Your task to perform on an android device: toggle pop-ups in chrome Image 0: 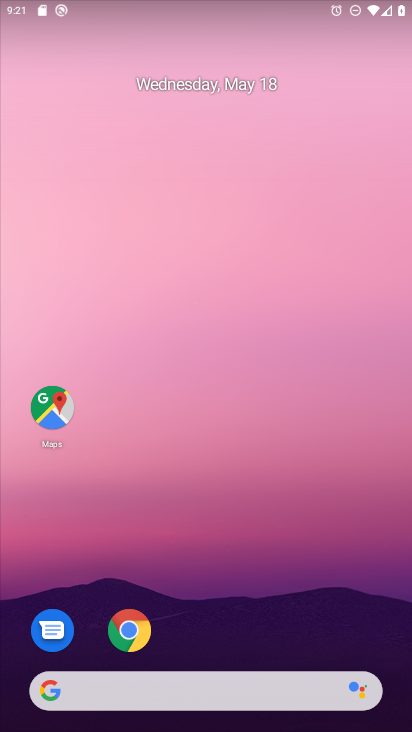
Step 0: click (122, 632)
Your task to perform on an android device: toggle pop-ups in chrome Image 1: 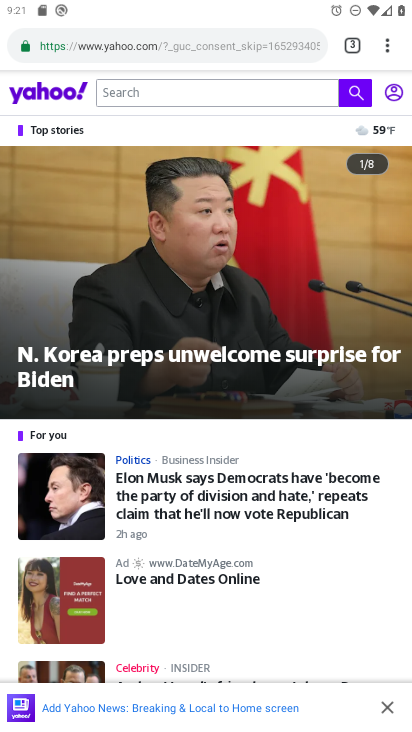
Step 1: click (390, 37)
Your task to perform on an android device: toggle pop-ups in chrome Image 2: 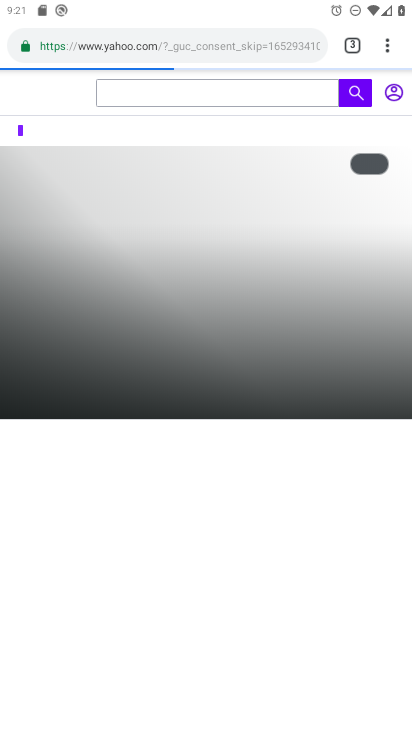
Step 2: drag from (384, 47) to (231, 510)
Your task to perform on an android device: toggle pop-ups in chrome Image 3: 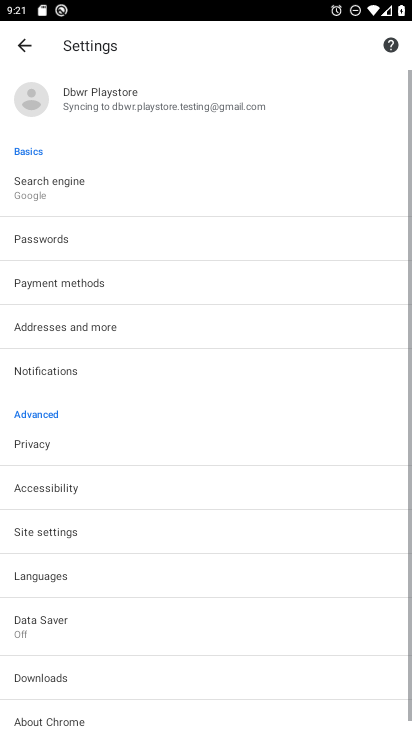
Step 3: drag from (181, 632) to (148, 286)
Your task to perform on an android device: toggle pop-ups in chrome Image 4: 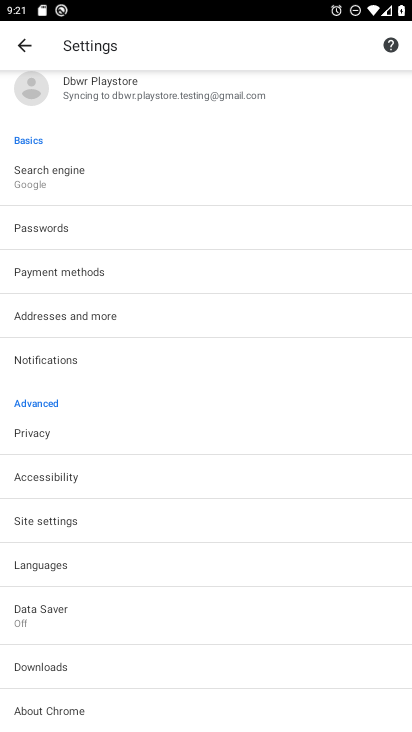
Step 4: click (46, 528)
Your task to perform on an android device: toggle pop-ups in chrome Image 5: 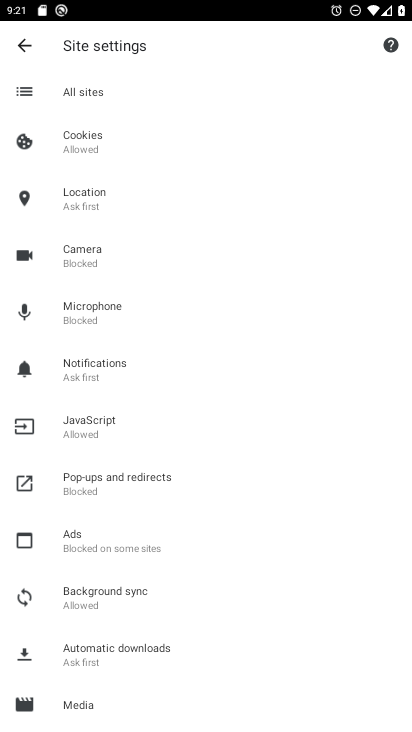
Step 5: click (104, 487)
Your task to perform on an android device: toggle pop-ups in chrome Image 6: 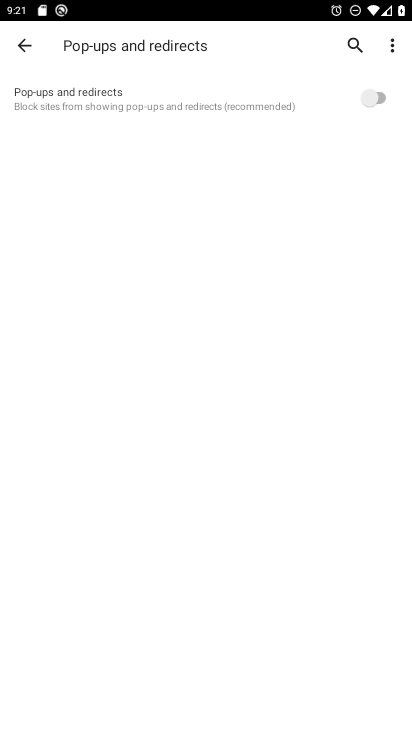
Step 6: click (379, 91)
Your task to perform on an android device: toggle pop-ups in chrome Image 7: 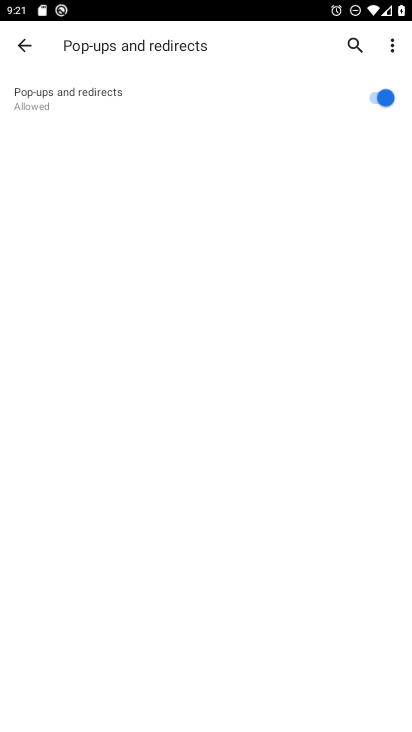
Step 7: task complete